Your task to perform on an android device: Go to Reddit.com Image 0: 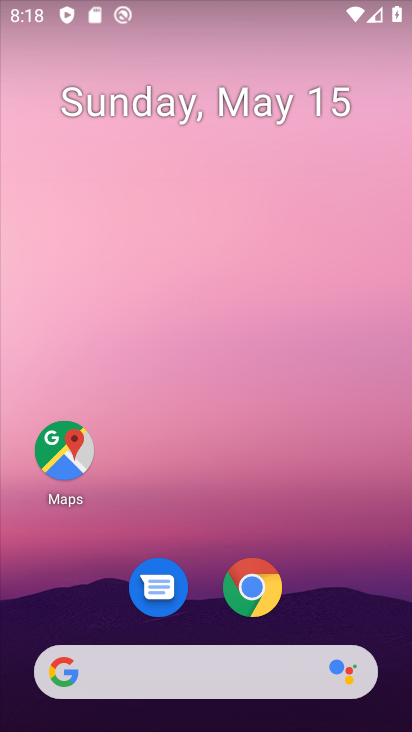
Step 0: drag from (362, 614) to (284, 4)
Your task to perform on an android device: Go to Reddit.com Image 1: 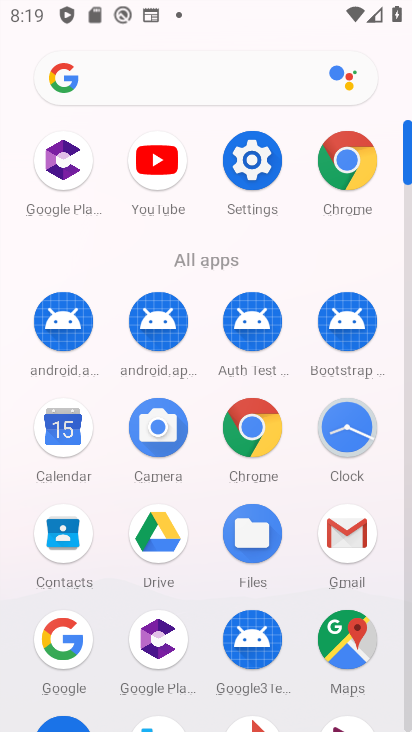
Step 1: click (253, 449)
Your task to perform on an android device: Go to Reddit.com Image 2: 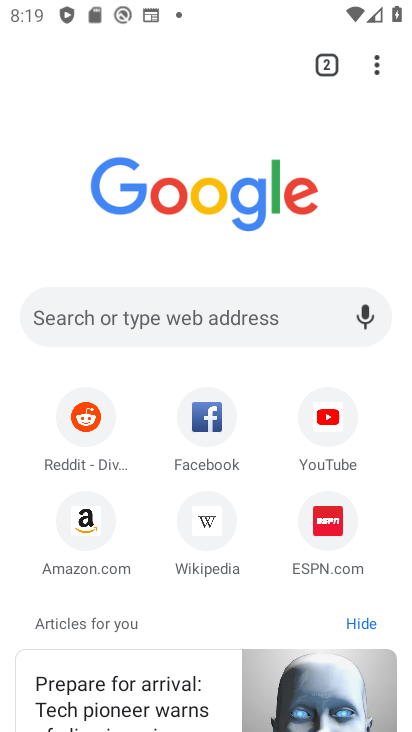
Step 2: click (90, 412)
Your task to perform on an android device: Go to Reddit.com Image 3: 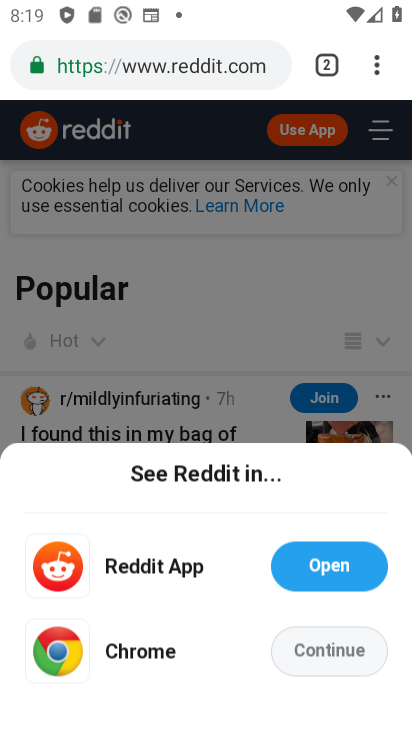
Step 3: task complete